Your task to perform on an android device: open app "Facebook Lite" (install if not already installed) Image 0: 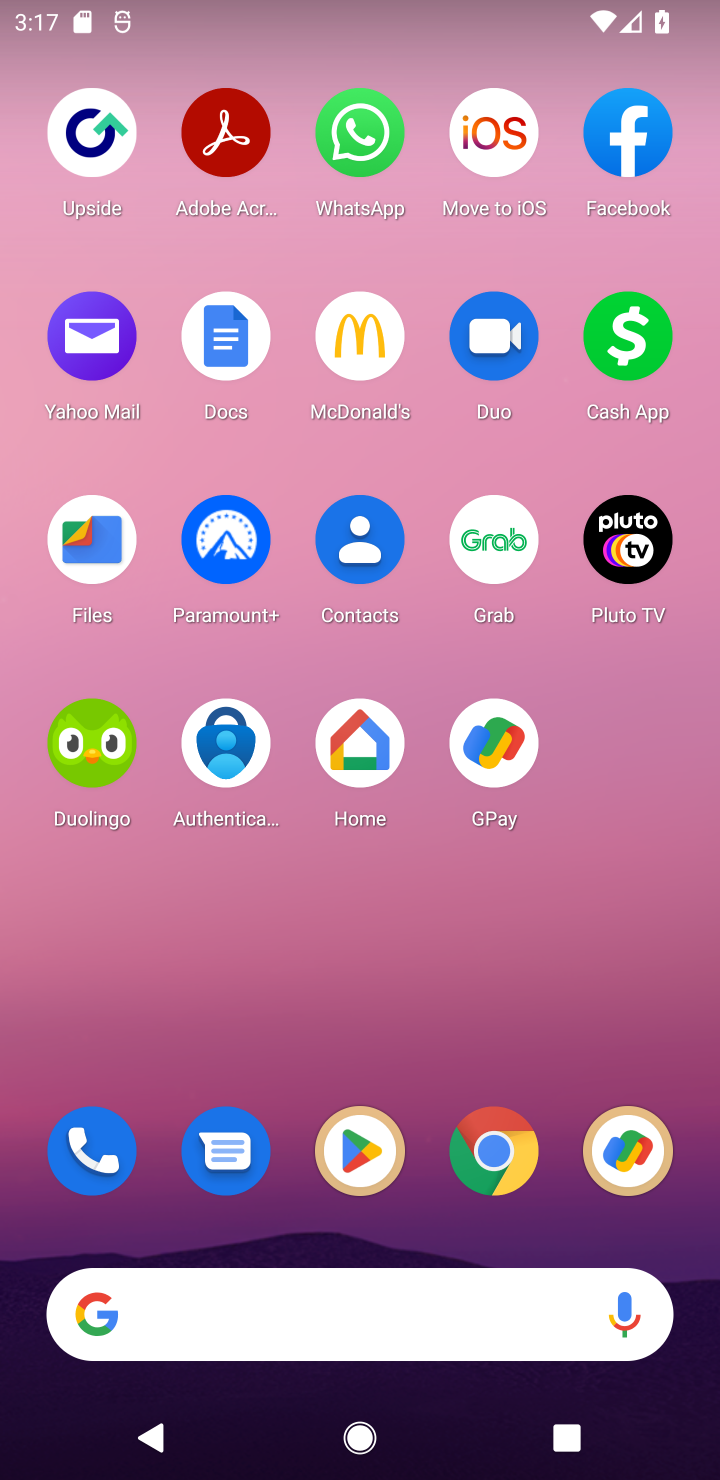
Step 0: click (368, 1192)
Your task to perform on an android device: open app "Facebook Lite" (install if not already installed) Image 1: 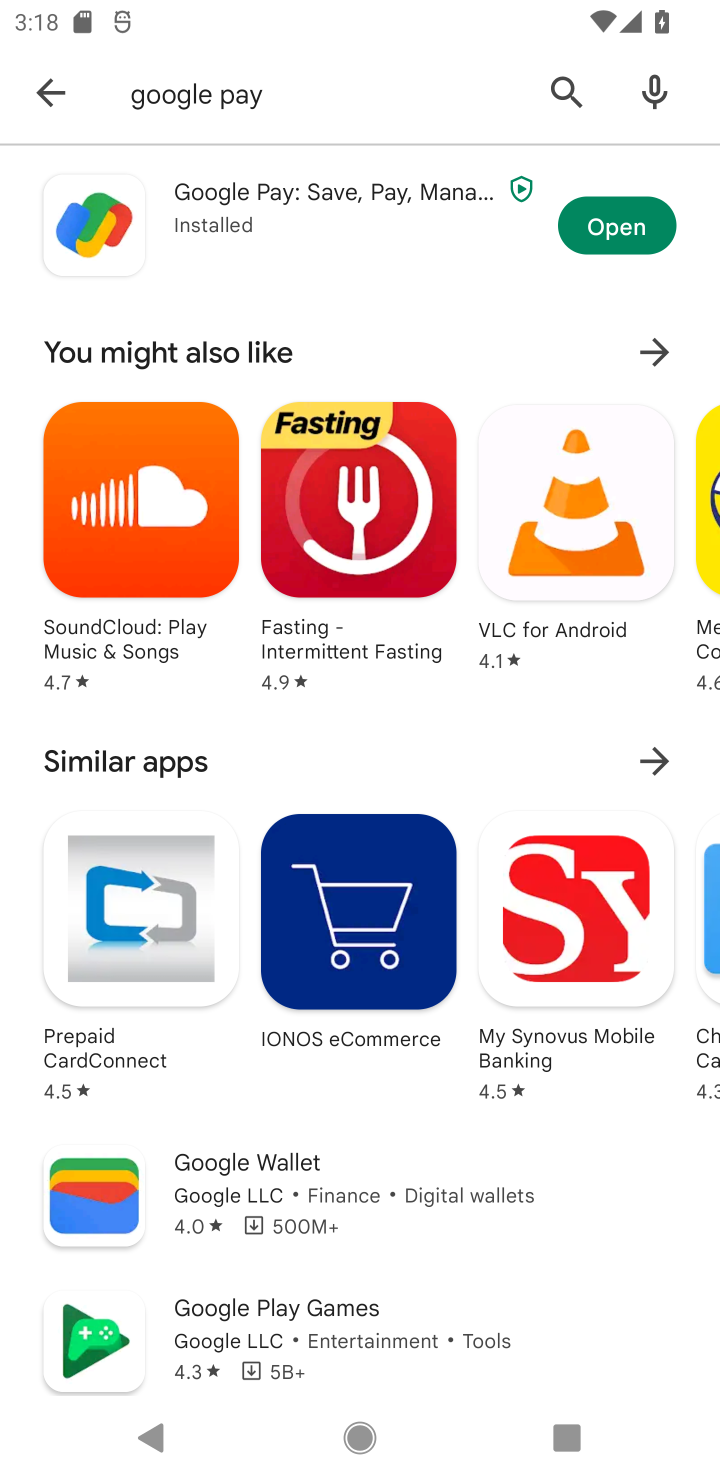
Step 1: click (567, 89)
Your task to perform on an android device: open app "Facebook Lite" (install if not already installed) Image 2: 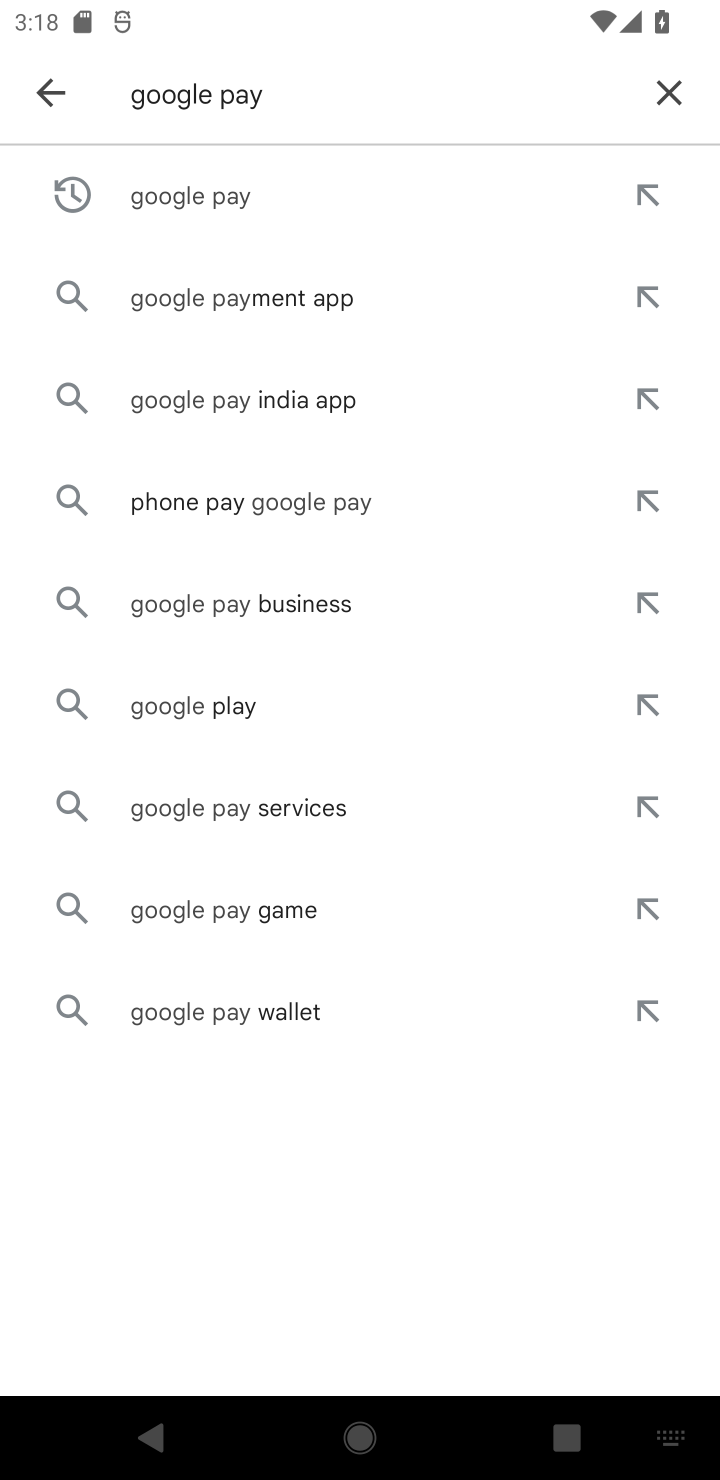
Step 2: click (641, 89)
Your task to perform on an android device: open app "Facebook Lite" (install if not already installed) Image 3: 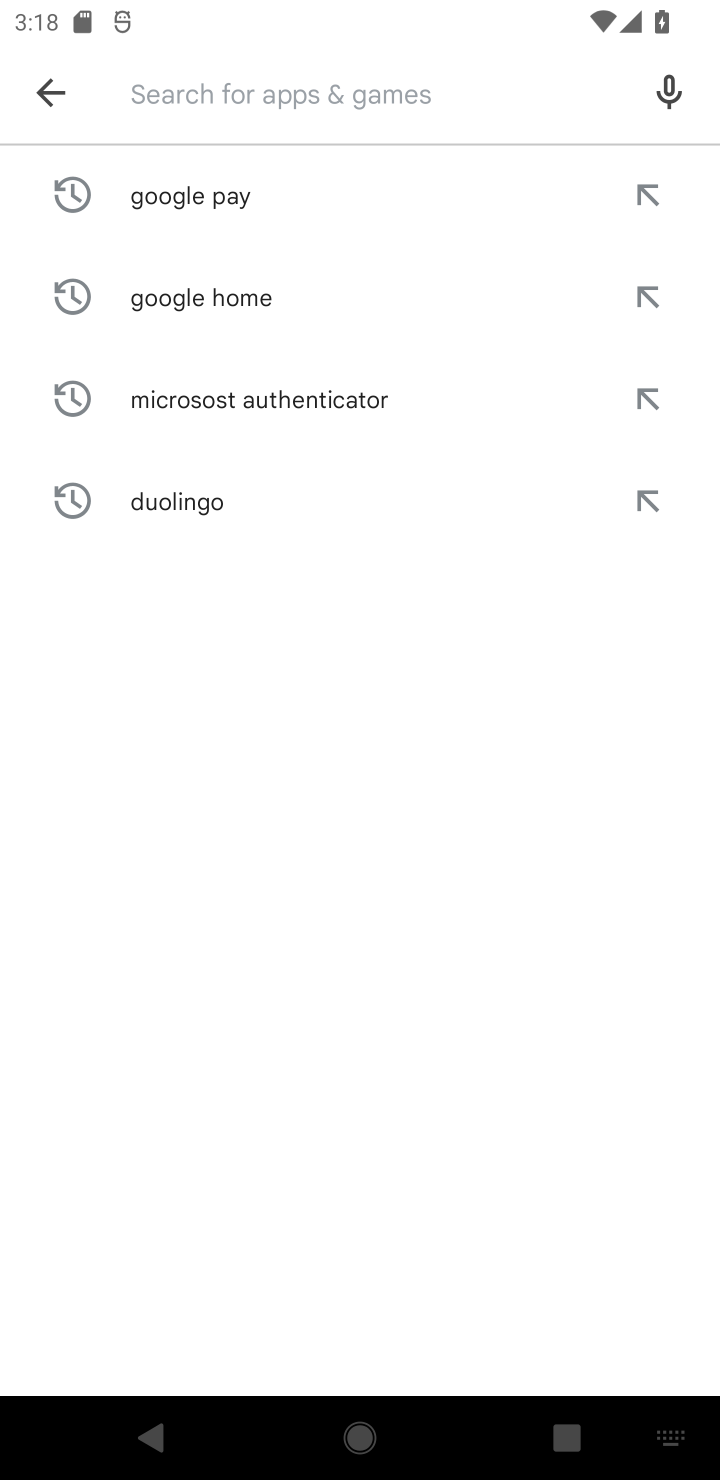
Step 3: type "faceboobk lite"
Your task to perform on an android device: open app "Facebook Lite" (install if not already installed) Image 4: 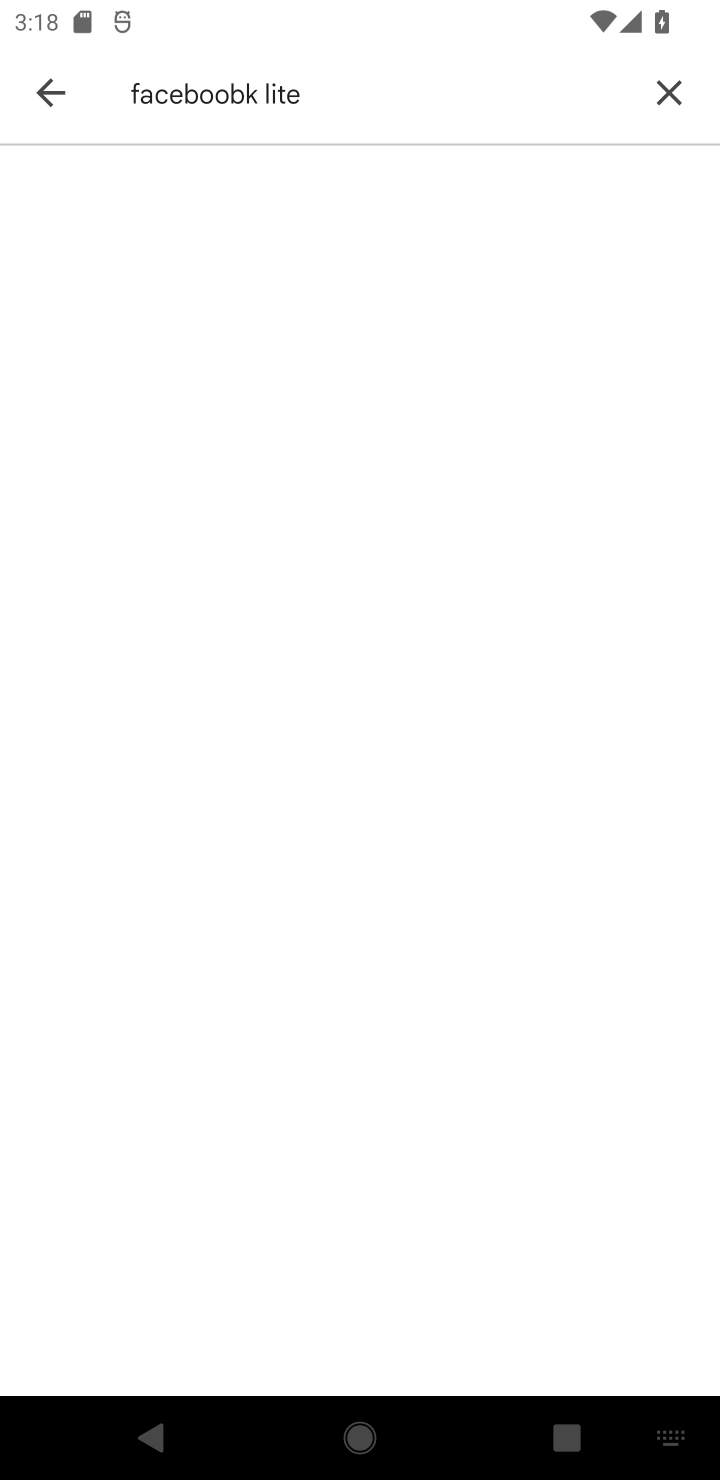
Step 4: click (693, 105)
Your task to perform on an android device: open app "Facebook Lite" (install if not already installed) Image 5: 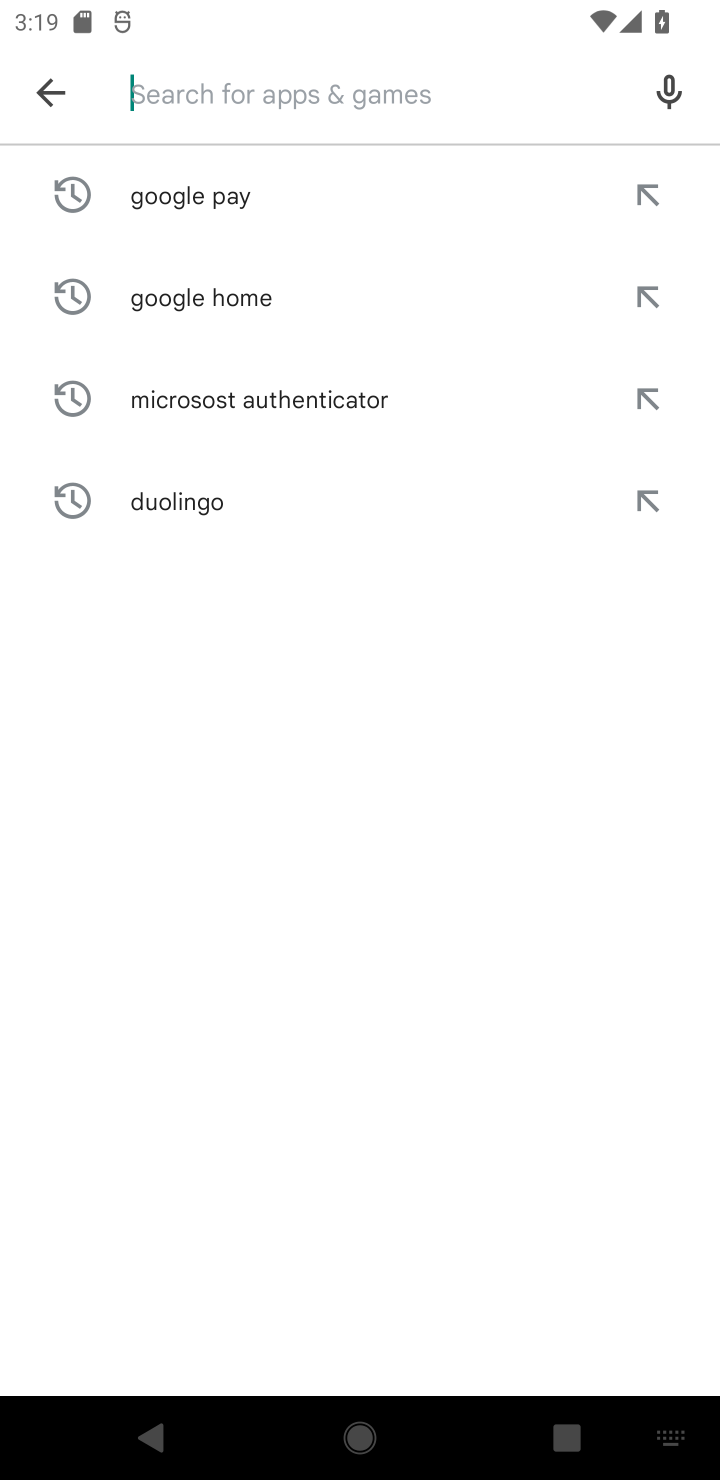
Step 5: type "facebook lite"
Your task to perform on an android device: open app "Facebook Lite" (install if not already installed) Image 6: 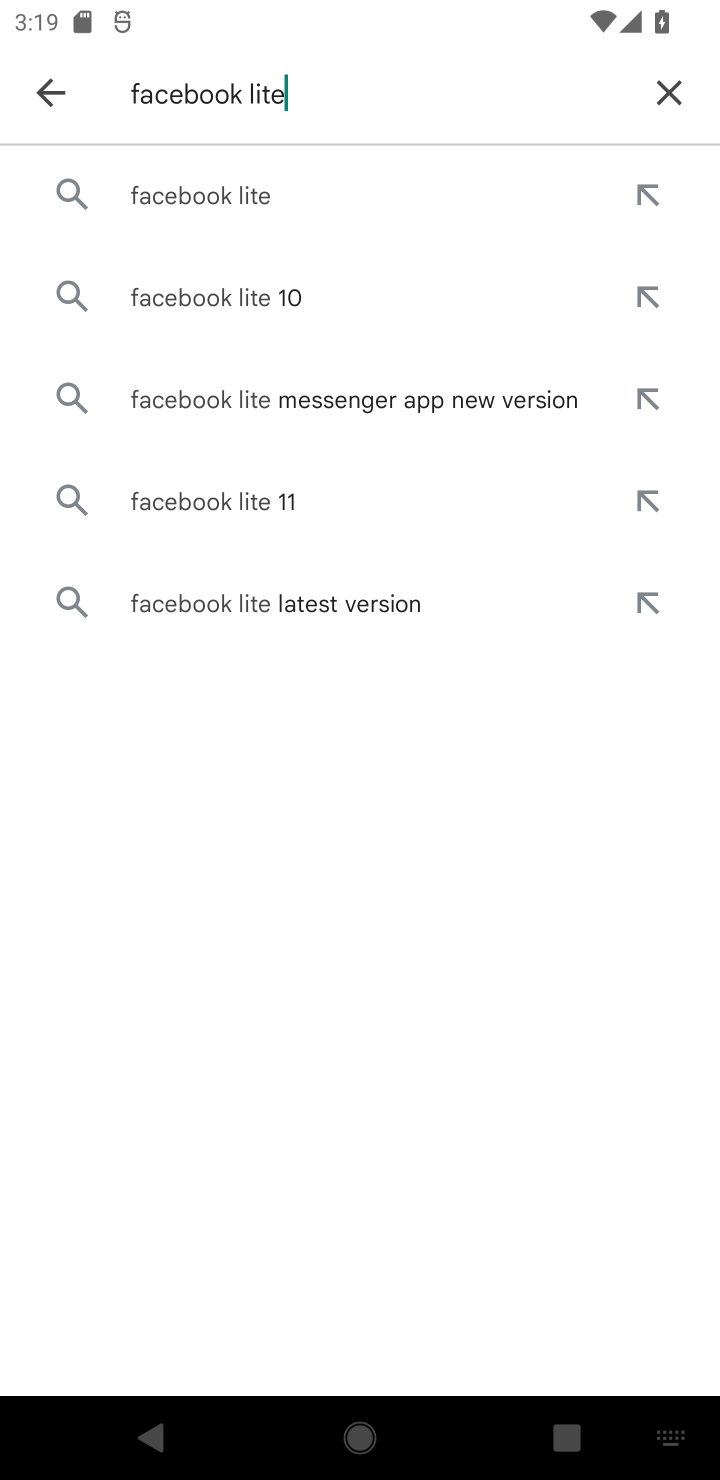
Step 6: click (242, 214)
Your task to perform on an android device: open app "Facebook Lite" (install if not already installed) Image 7: 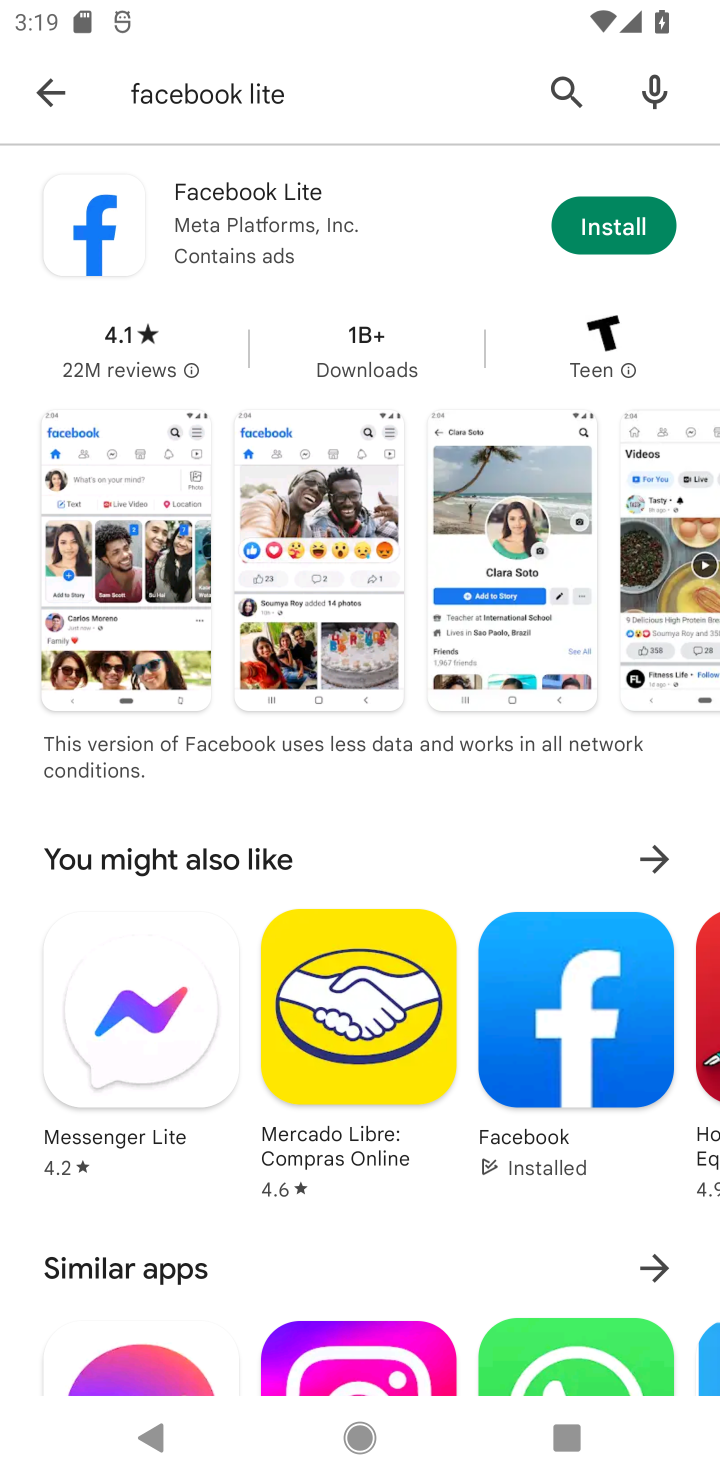
Step 7: click (635, 212)
Your task to perform on an android device: open app "Facebook Lite" (install if not already installed) Image 8: 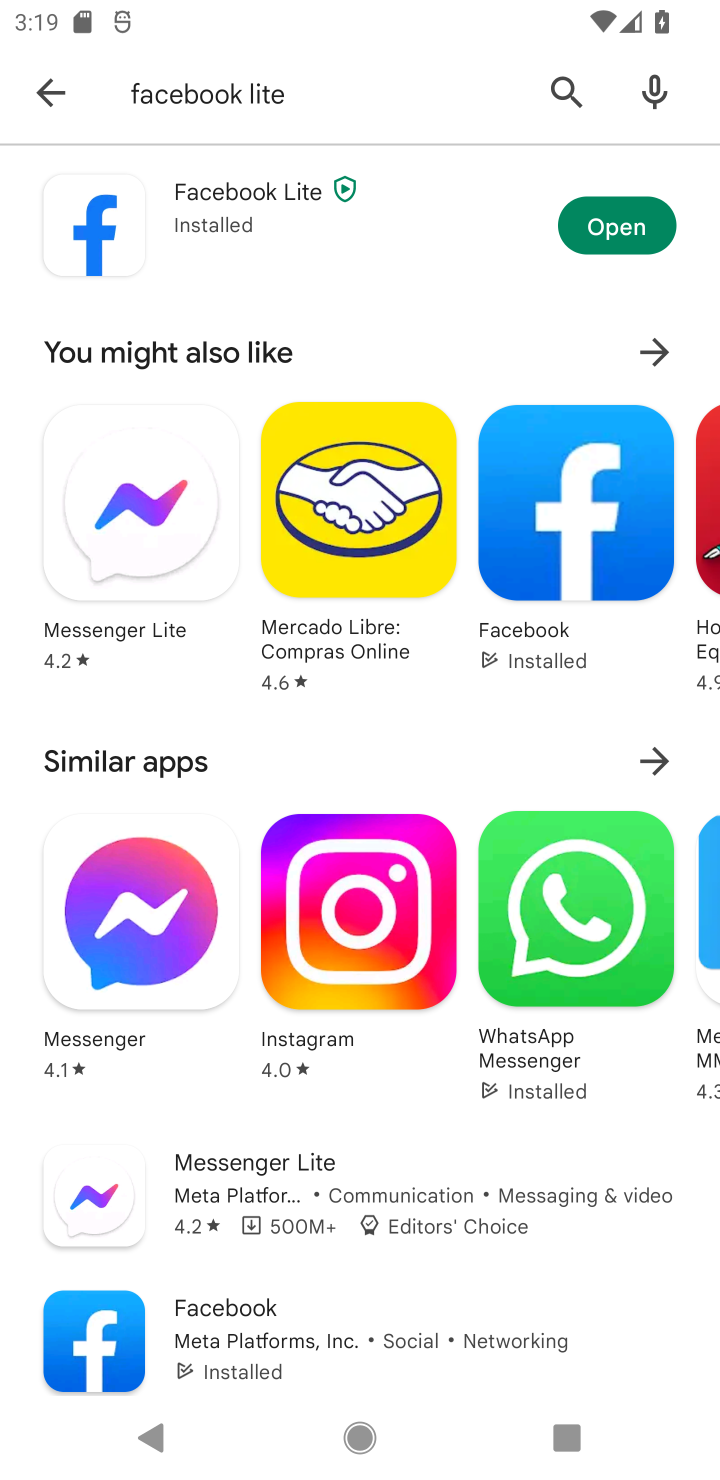
Step 8: click (645, 197)
Your task to perform on an android device: open app "Facebook Lite" (install if not already installed) Image 9: 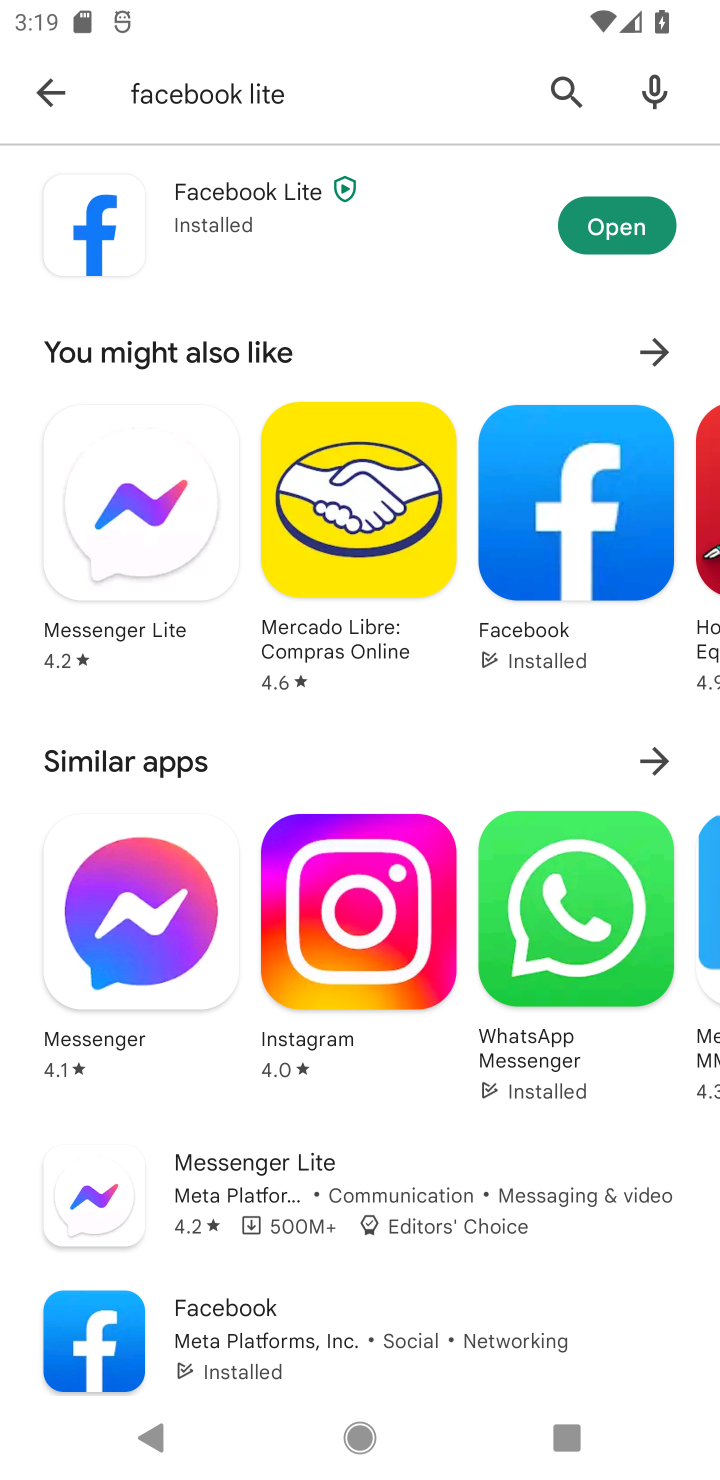
Step 9: task complete